Your task to perform on an android device: Open Google Chrome and open the bookmarks view Image 0: 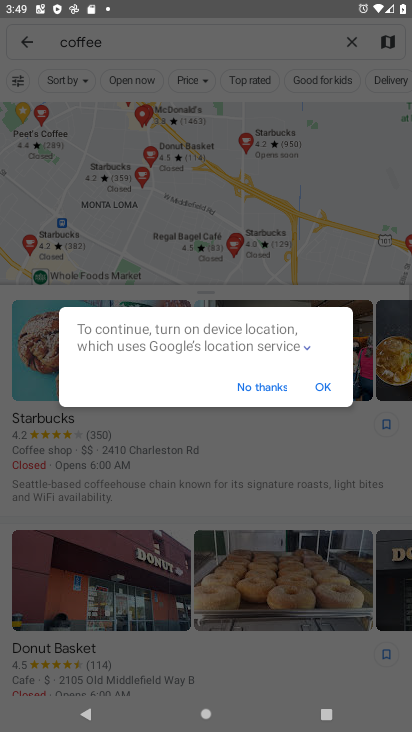
Step 0: press home button
Your task to perform on an android device: Open Google Chrome and open the bookmarks view Image 1: 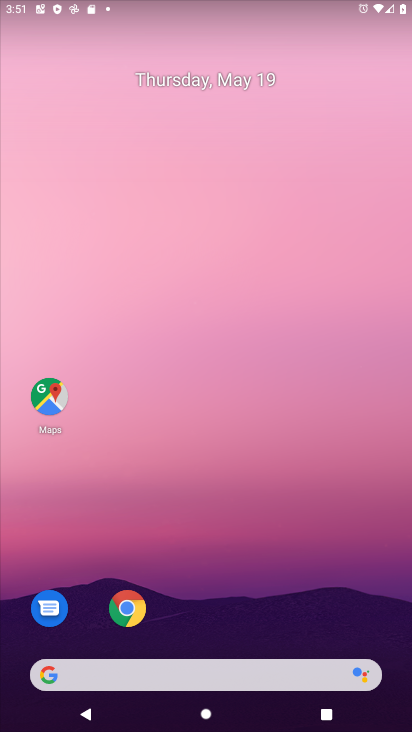
Step 1: click (130, 615)
Your task to perform on an android device: Open Google Chrome and open the bookmarks view Image 2: 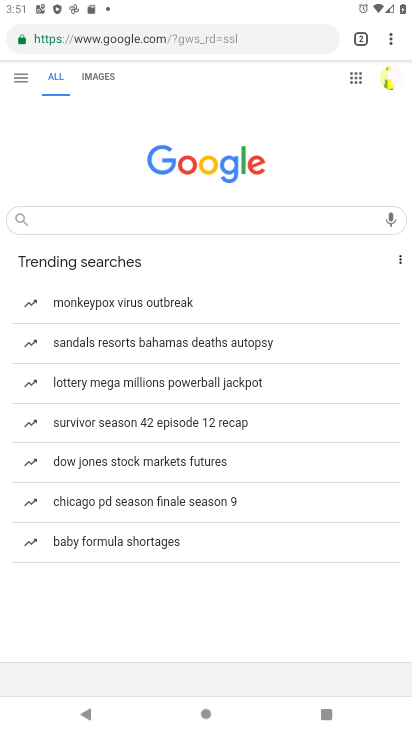
Step 2: click (393, 42)
Your task to perform on an android device: Open Google Chrome and open the bookmarks view Image 3: 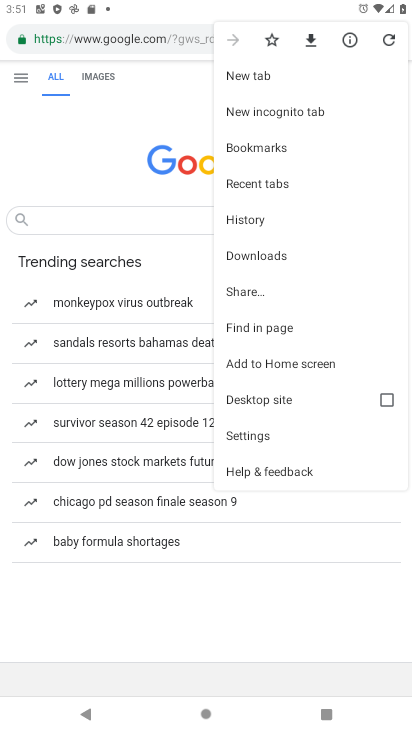
Step 3: click (259, 135)
Your task to perform on an android device: Open Google Chrome and open the bookmarks view Image 4: 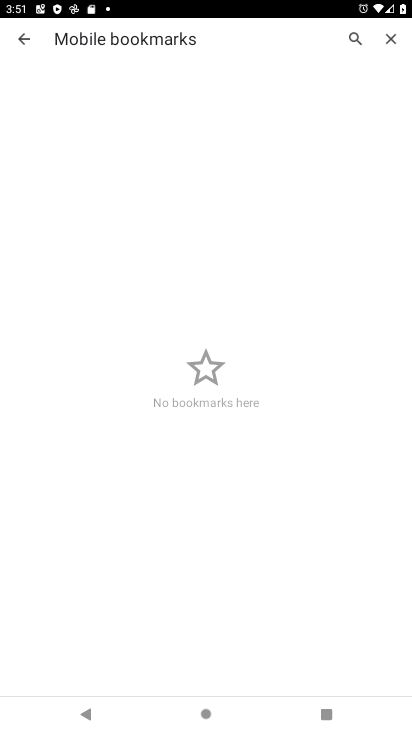
Step 4: task complete